Your task to perform on an android device: Go to Maps Image 0: 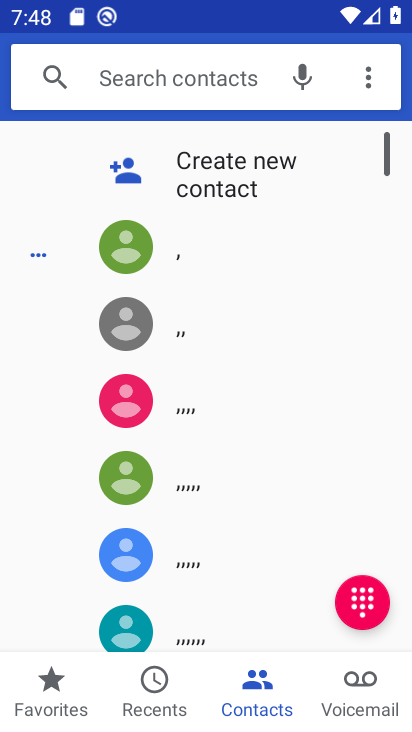
Step 0: press home button
Your task to perform on an android device: Go to Maps Image 1: 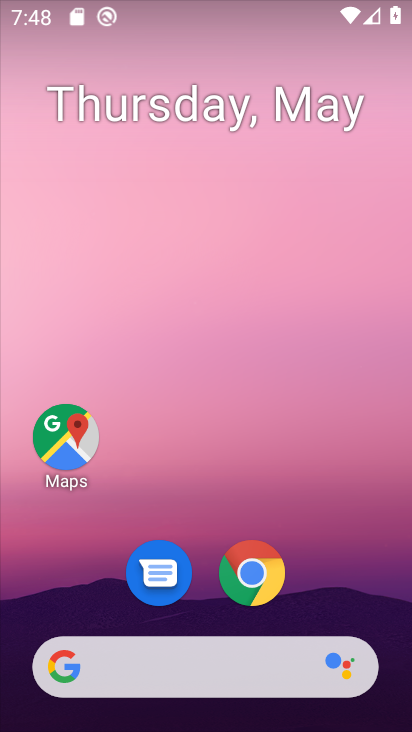
Step 1: click (49, 437)
Your task to perform on an android device: Go to Maps Image 2: 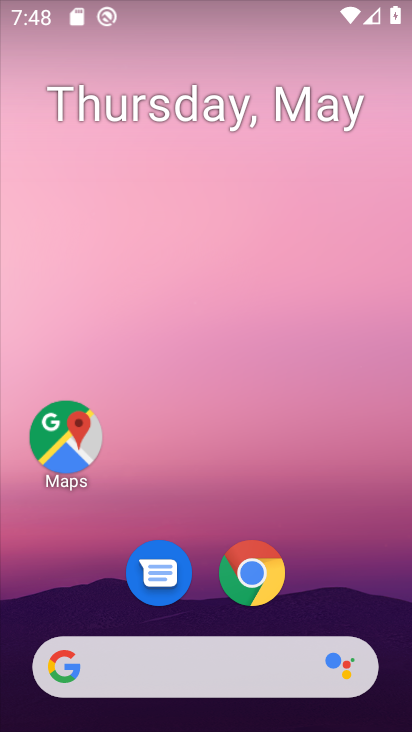
Step 2: click (79, 416)
Your task to perform on an android device: Go to Maps Image 3: 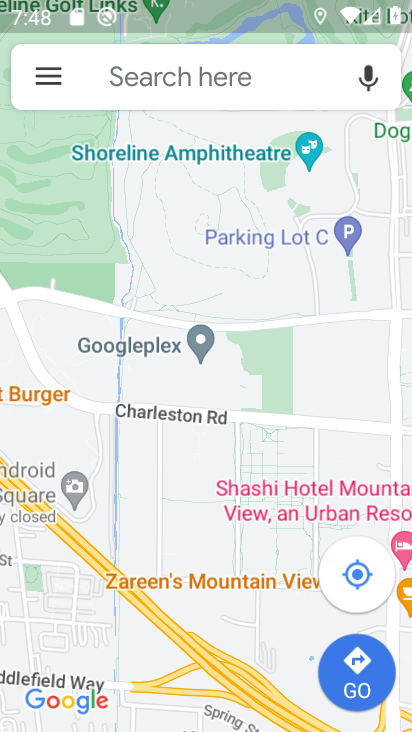
Step 3: task complete